Your task to perform on an android device: Open privacy settings Image 0: 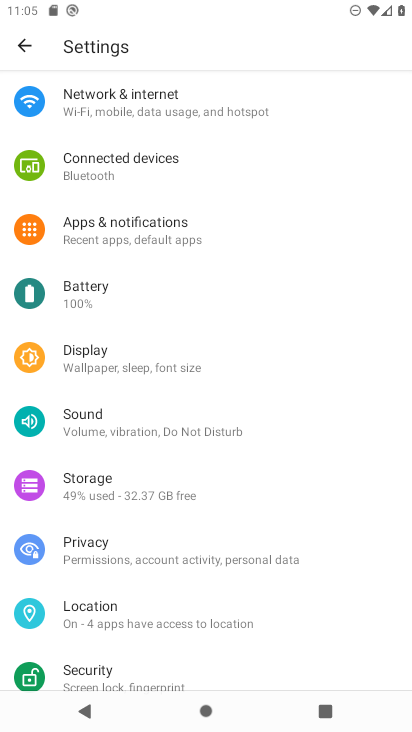
Step 0: press home button
Your task to perform on an android device: Open privacy settings Image 1: 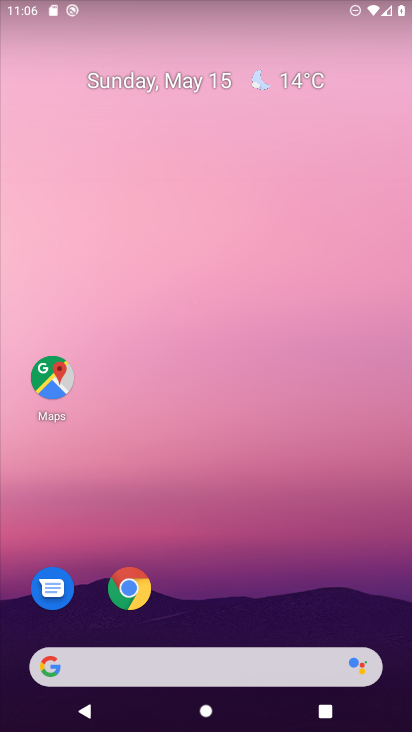
Step 1: drag from (220, 613) to (257, 186)
Your task to perform on an android device: Open privacy settings Image 2: 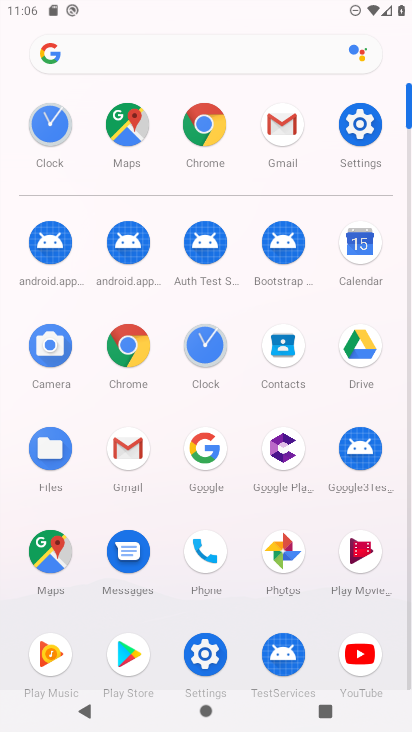
Step 2: click (381, 138)
Your task to perform on an android device: Open privacy settings Image 3: 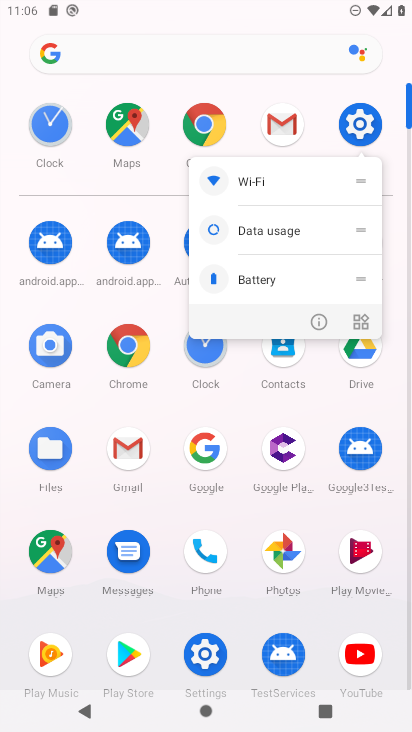
Step 3: click (358, 116)
Your task to perform on an android device: Open privacy settings Image 4: 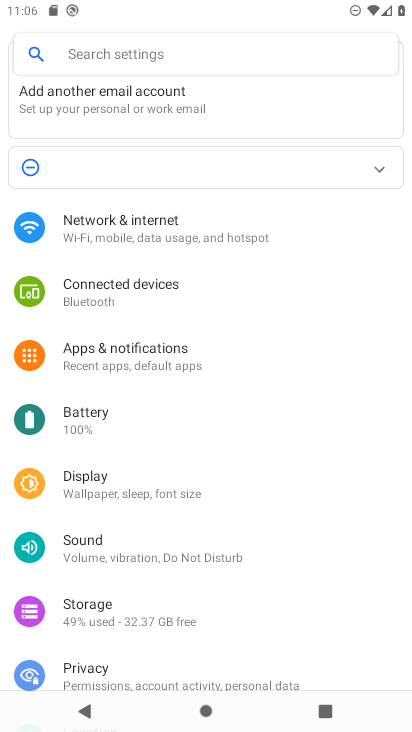
Step 4: drag from (166, 551) to (208, 253)
Your task to perform on an android device: Open privacy settings Image 5: 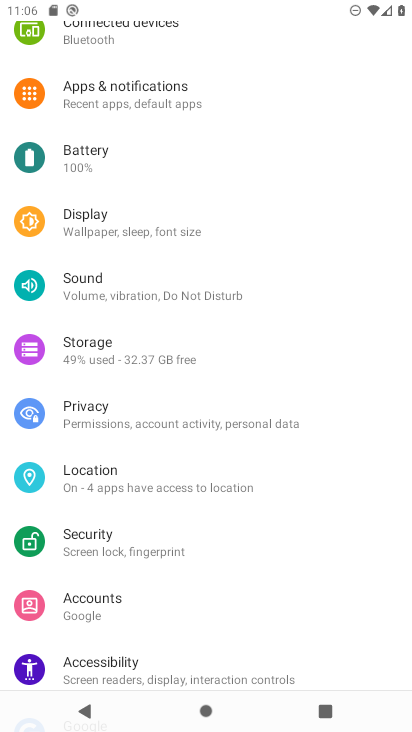
Step 5: click (135, 416)
Your task to perform on an android device: Open privacy settings Image 6: 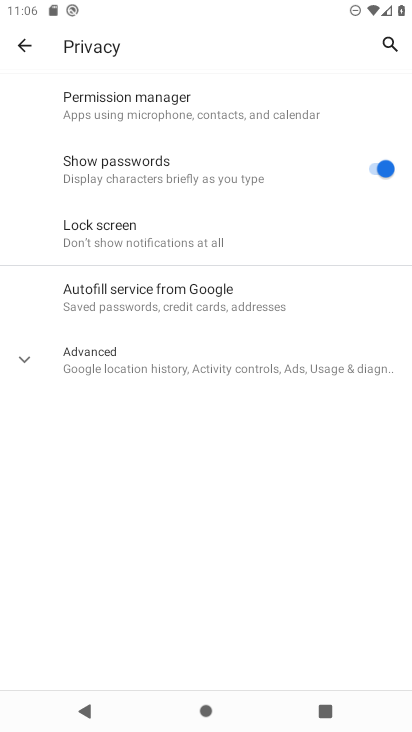
Step 6: task complete